Your task to perform on an android device: add a label to a message in the gmail app Image 0: 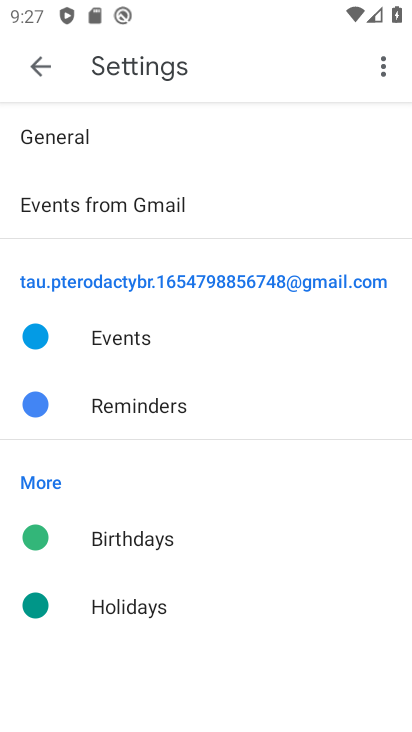
Step 0: press home button
Your task to perform on an android device: add a label to a message in the gmail app Image 1: 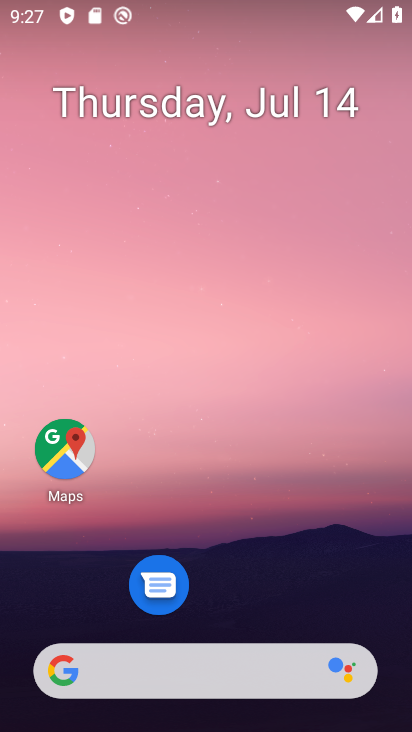
Step 1: drag from (233, 632) to (102, 3)
Your task to perform on an android device: add a label to a message in the gmail app Image 2: 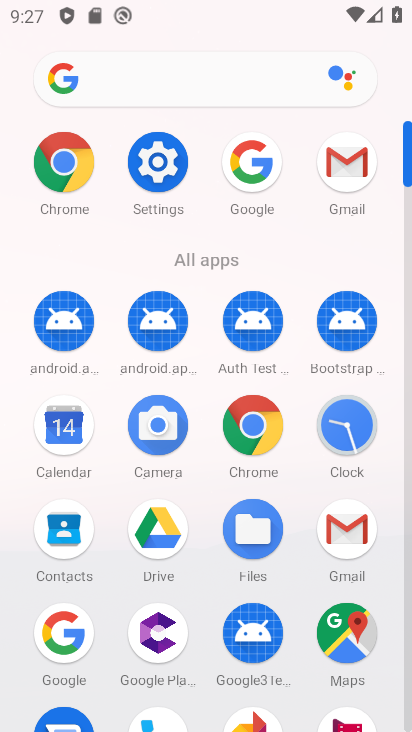
Step 2: click (357, 539)
Your task to perform on an android device: add a label to a message in the gmail app Image 3: 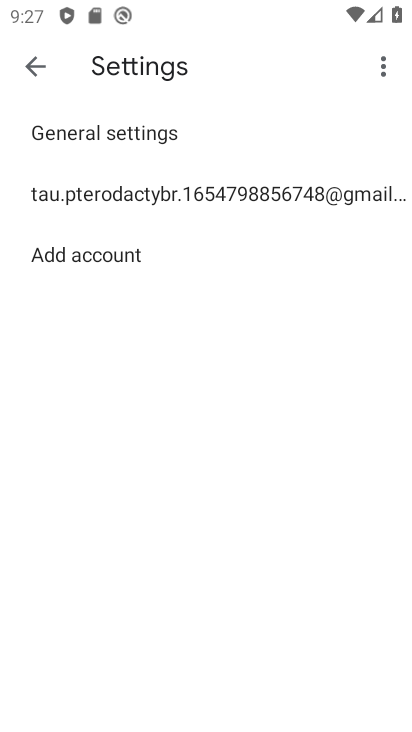
Step 3: click (39, 64)
Your task to perform on an android device: add a label to a message in the gmail app Image 4: 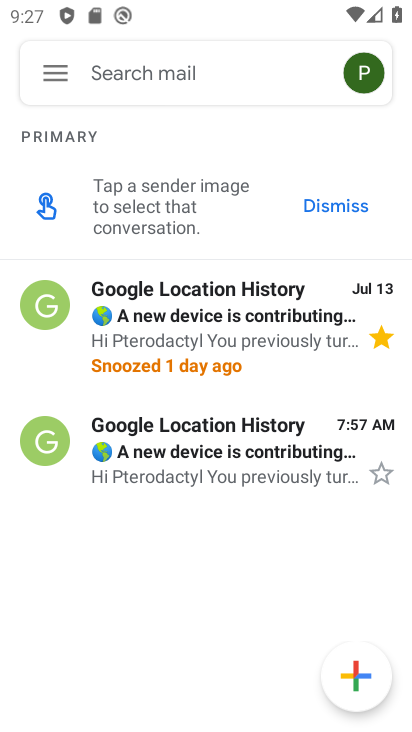
Step 4: click (319, 211)
Your task to perform on an android device: add a label to a message in the gmail app Image 5: 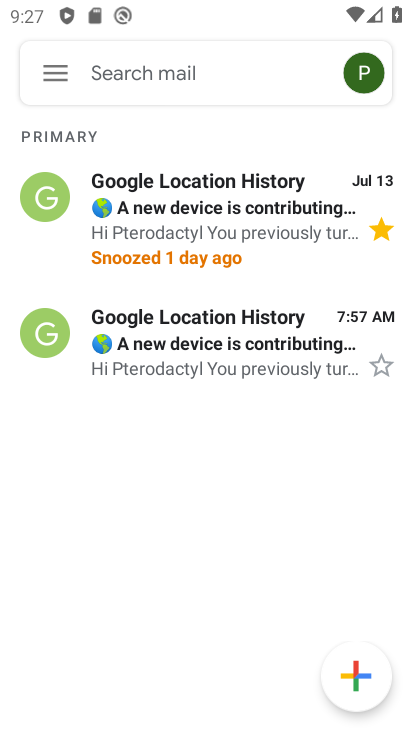
Step 5: drag from (319, 211) to (319, 251)
Your task to perform on an android device: add a label to a message in the gmail app Image 6: 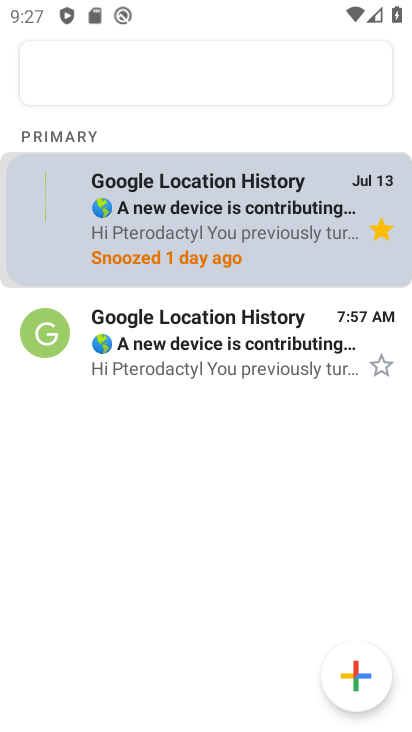
Step 6: drag from (319, 251) to (322, 287)
Your task to perform on an android device: add a label to a message in the gmail app Image 7: 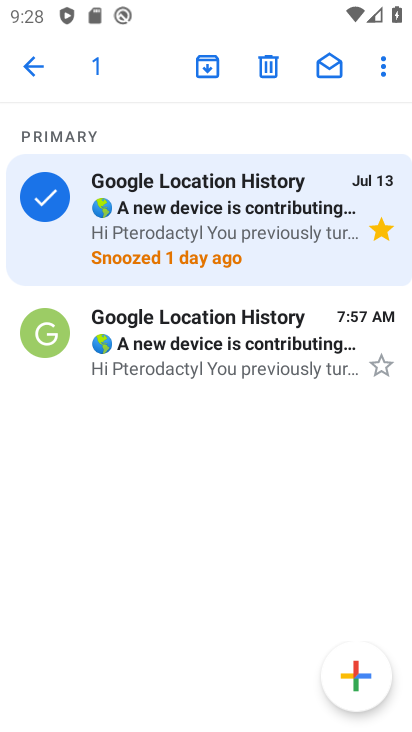
Step 7: click (22, 64)
Your task to perform on an android device: add a label to a message in the gmail app Image 8: 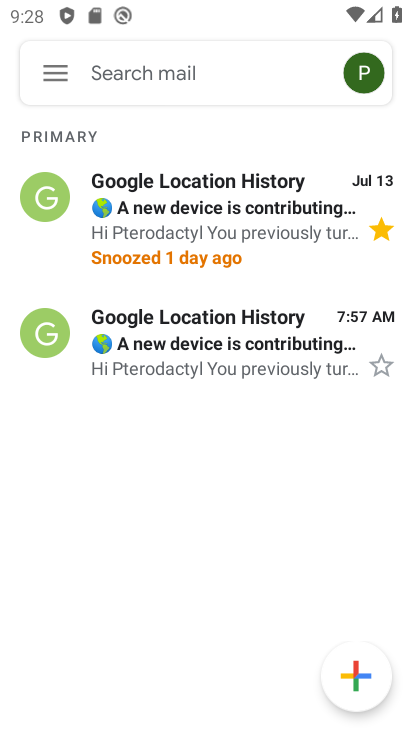
Step 8: task complete